Your task to perform on an android device: Search for sushi restaurants on Maps Image 0: 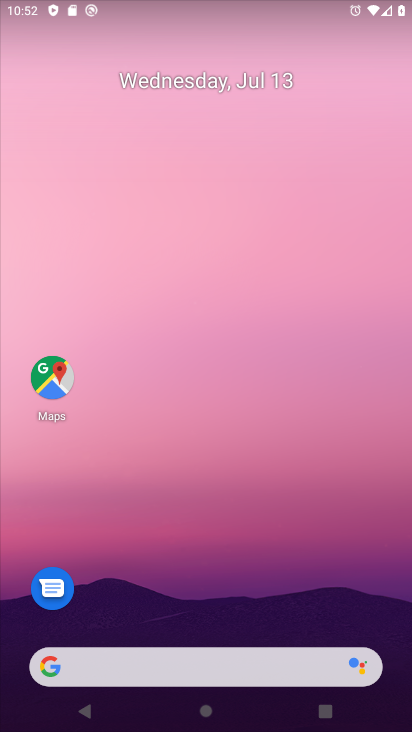
Step 0: click (53, 375)
Your task to perform on an android device: Search for sushi restaurants on Maps Image 1: 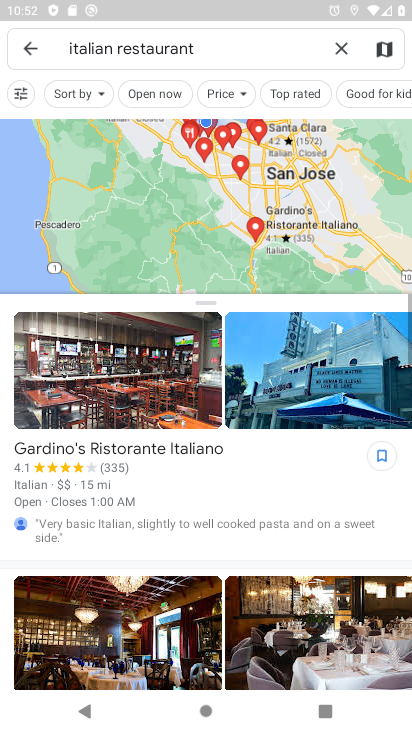
Step 1: click (348, 51)
Your task to perform on an android device: Search for sushi restaurants on Maps Image 2: 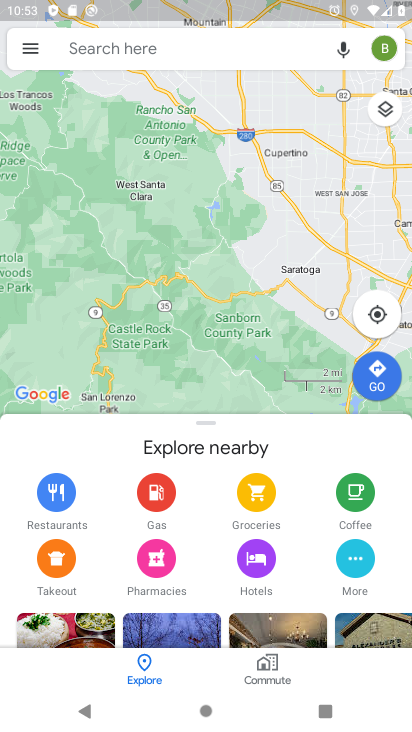
Step 2: click (302, 47)
Your task to perform on an android device: Search for sushi restaurants on Maps Image 3: 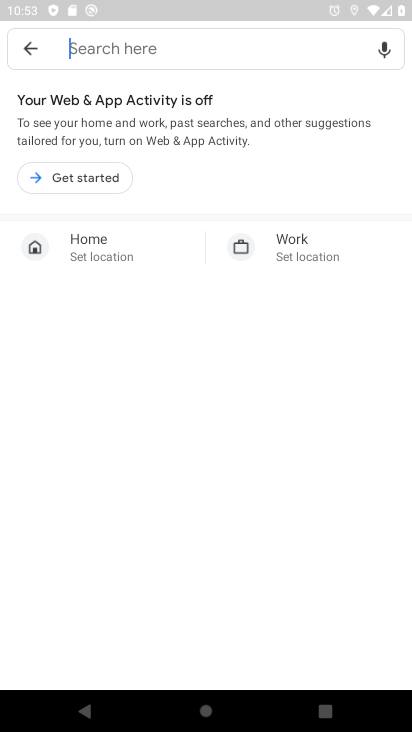
Step 3: type "sushi"
Your task to perform on an android device: Search for sushi restaurants on Maps Image 4: 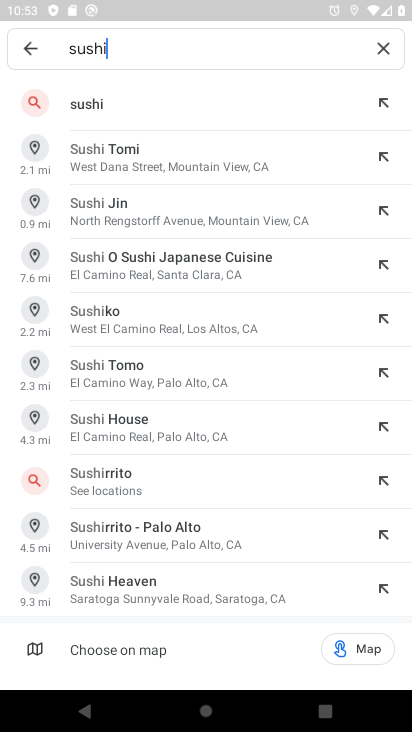
Step 4: type "rest"
Your task to perform on an android device: Search for sushi restaurants on Maps Image 5: 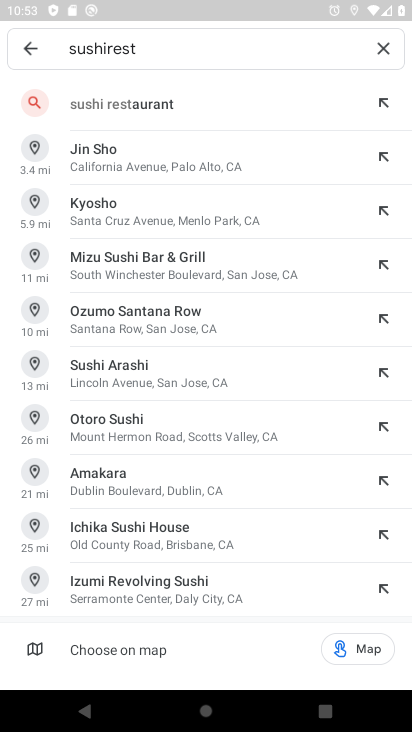
Step 5: click (273, 105)
Your task to perform on an android device: Search for sushi restaurants on Maps Image 6: 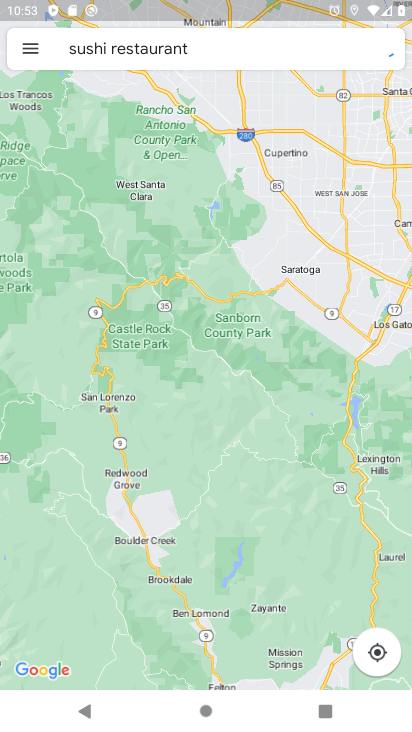
Step 6: task complete